Your task to perform on an android device: What's the price of the Sony TV? Image 0: 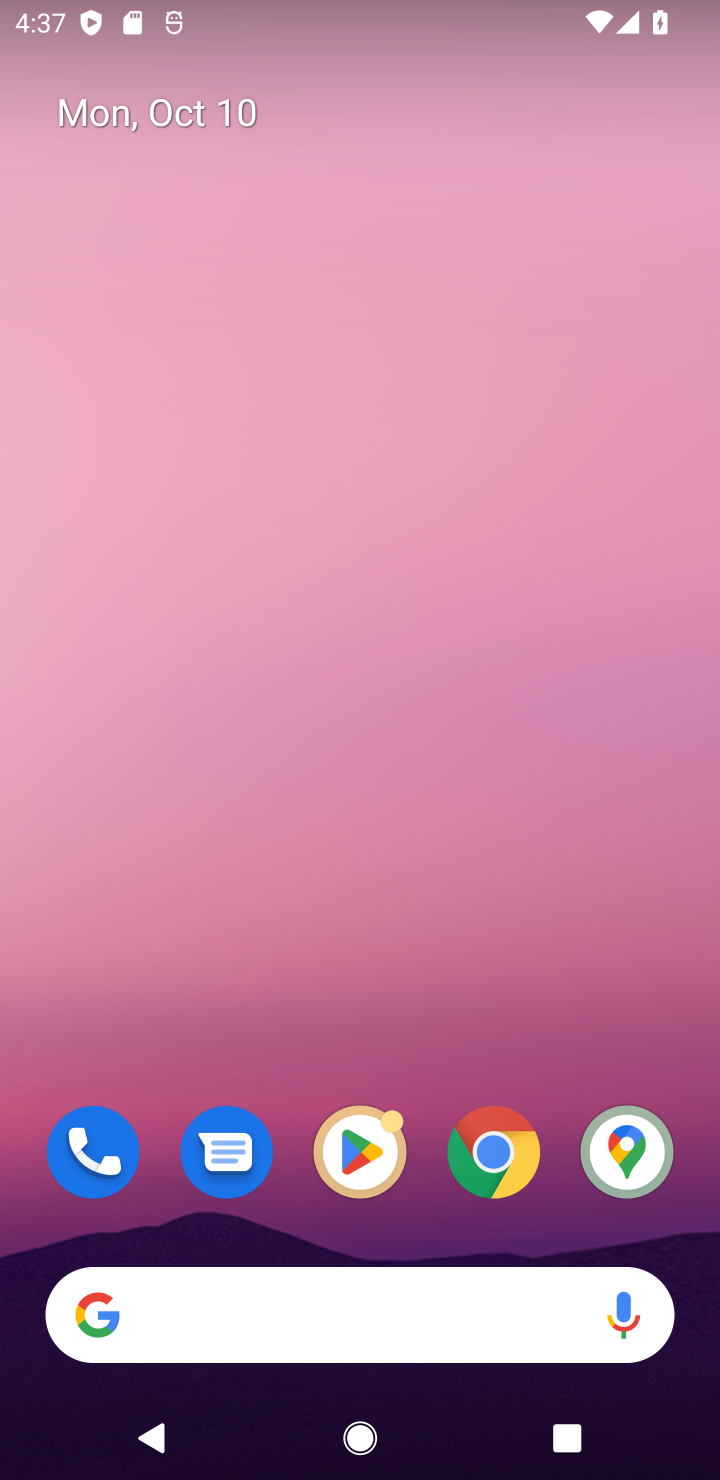
Step 0: click (498, 1157)
Your task to perform on an android device: What's the price of the Sony TV? Image 1: 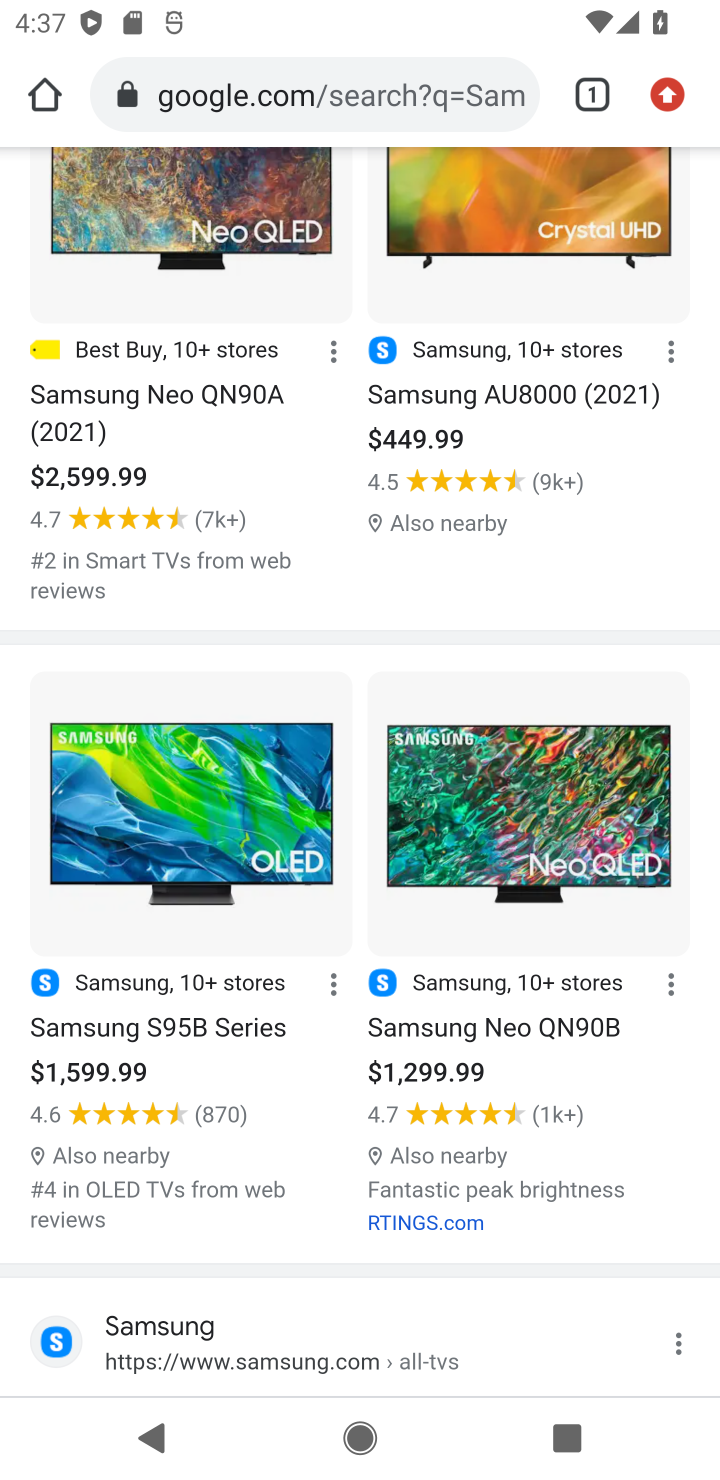
Step 1: click (372, 91)
Your task to perform on an android device: What's the price of the Sony TV? Image 2: 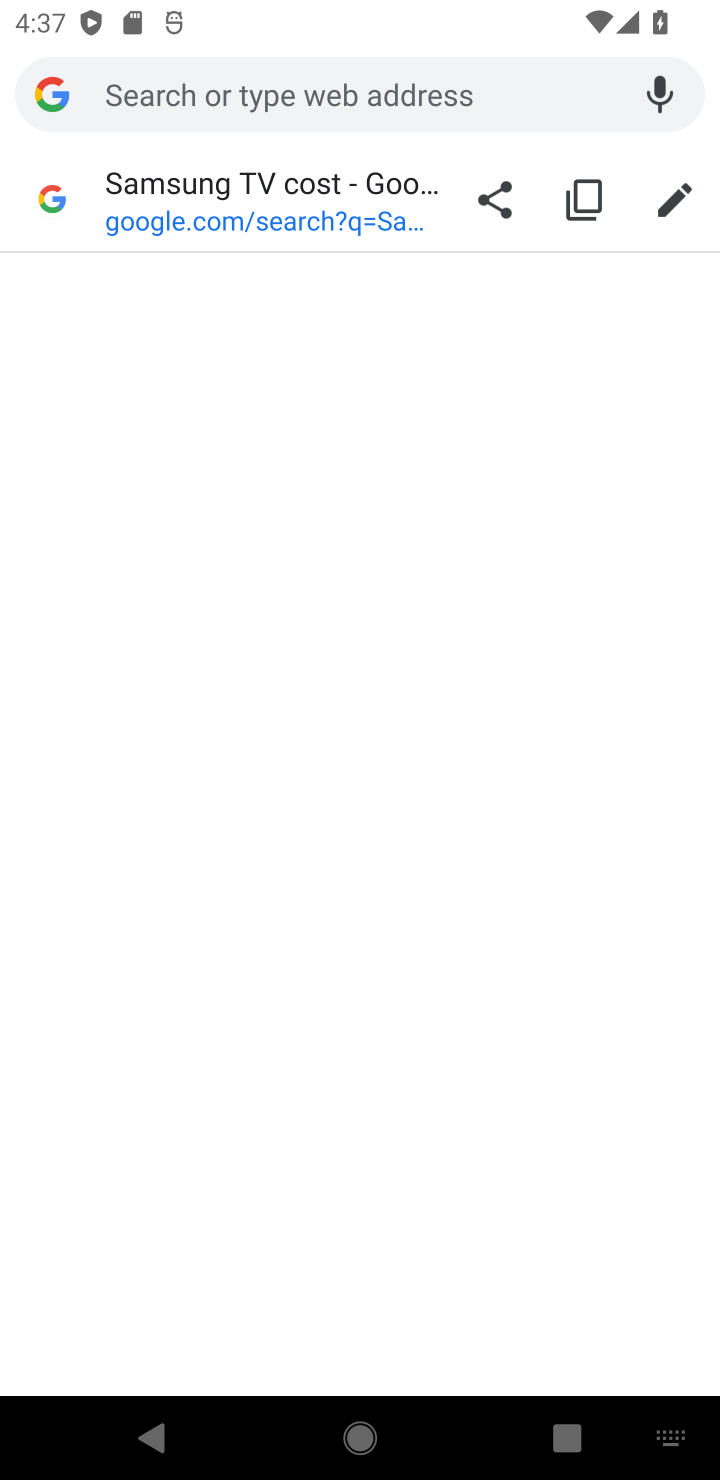
Step 2: type "Price of sony TV?"
Your task to perform on an android device: What's the price of the Sony TV? Image 3: 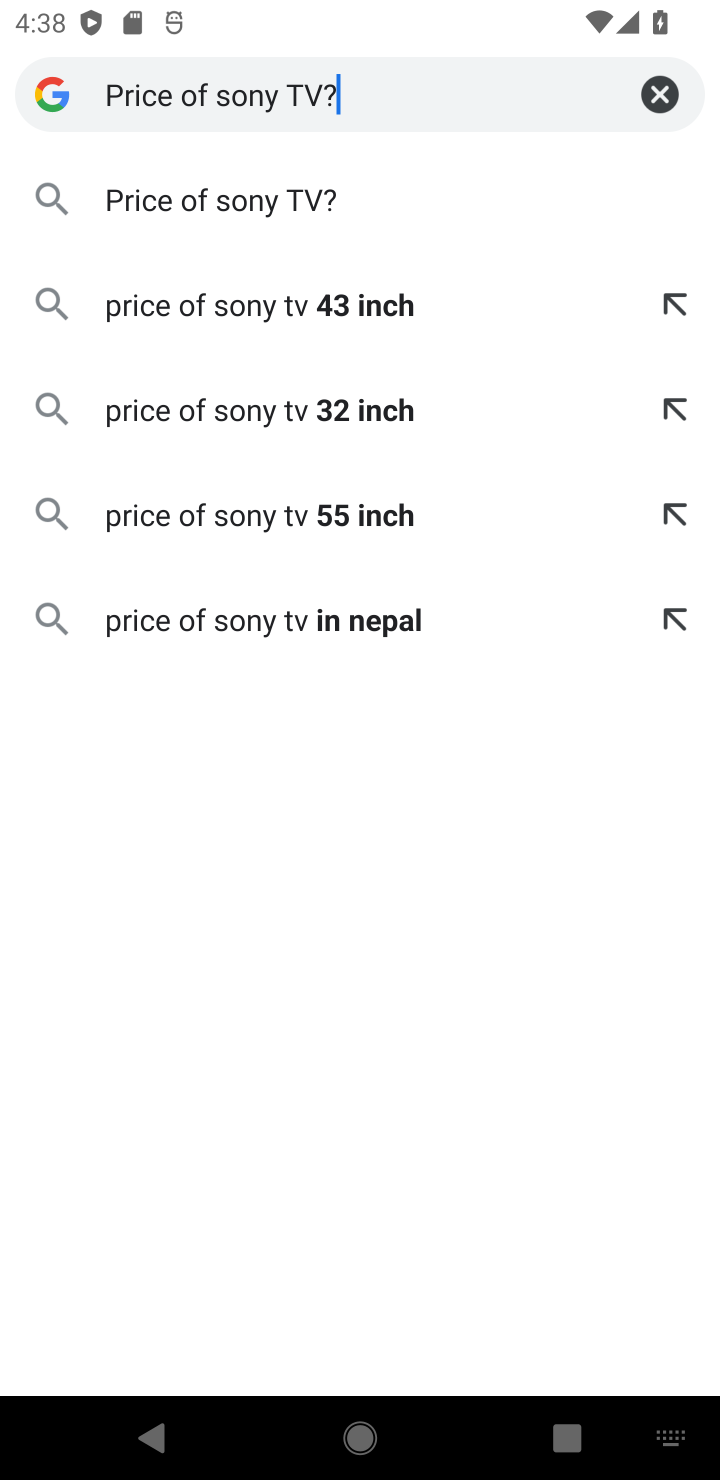
Step 3: click (219, 199)
Your task to perform on an android device: What's the price of the Sony TV? Image 4: 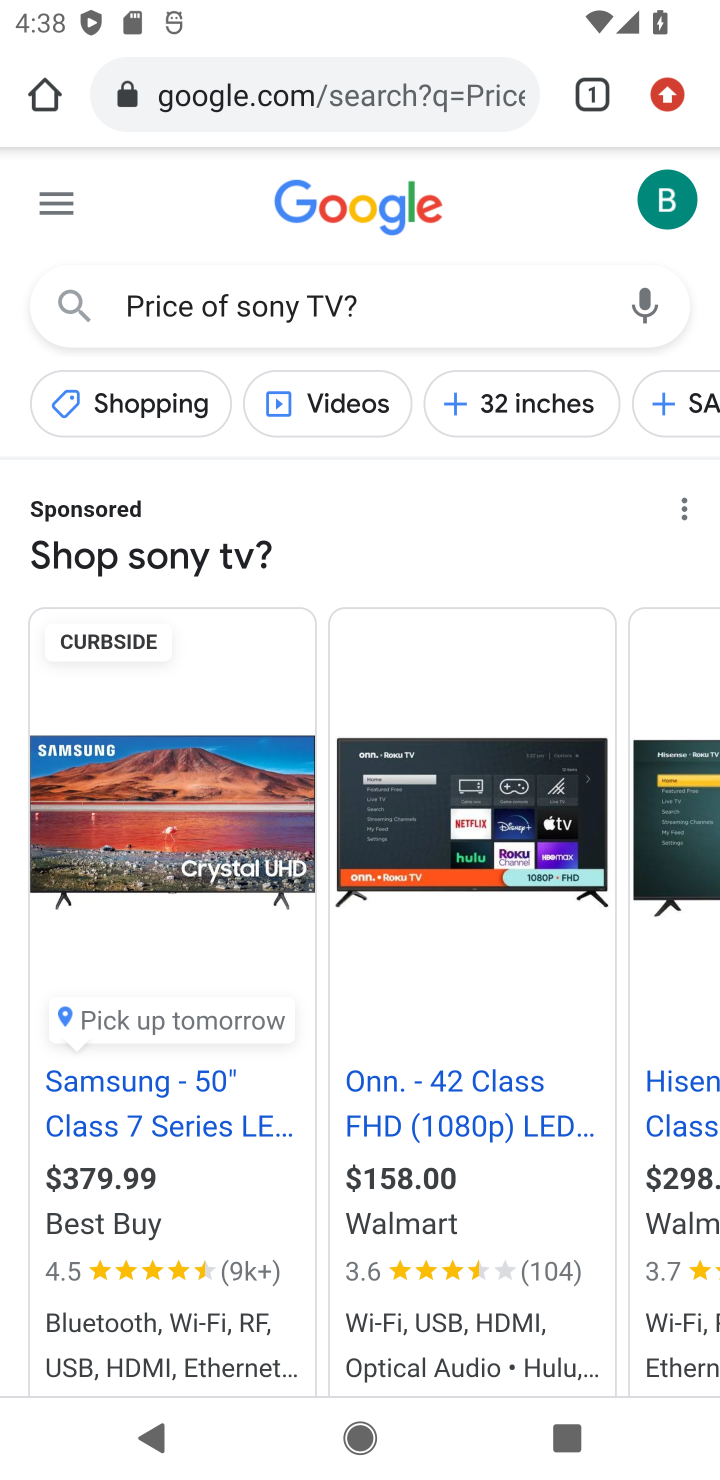
Step 4: task complete